Your task to perform on an android device: change alarm snooze length Image 0: 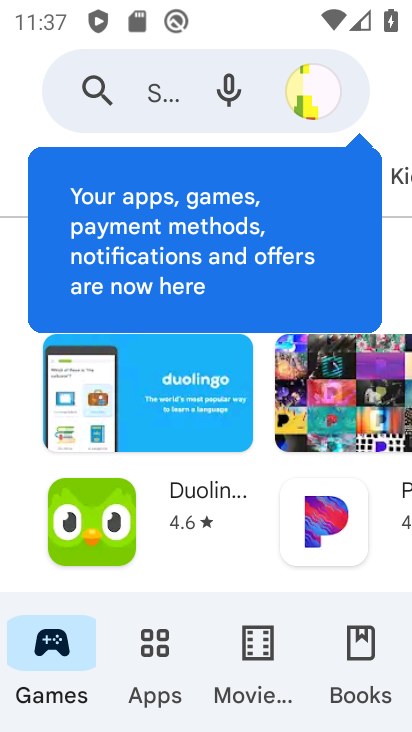
Step 0: press home button
Your task to perform on an android device: change alarm snooze length Image 1: 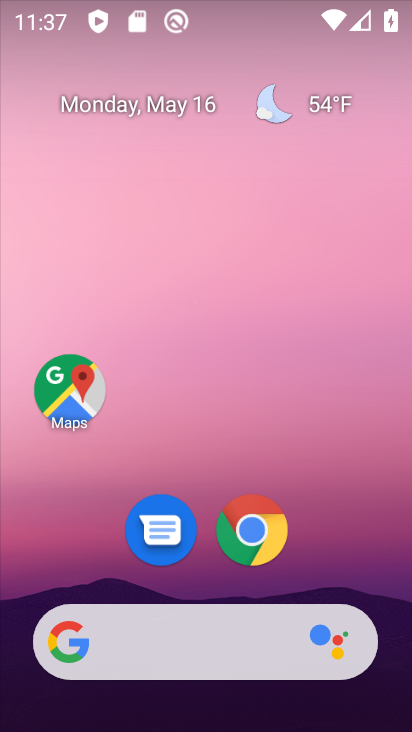
Step 1: drag from (364, 569) to (367, 76)
Your task to perform on an android device: change alarm snooze length Image 2: 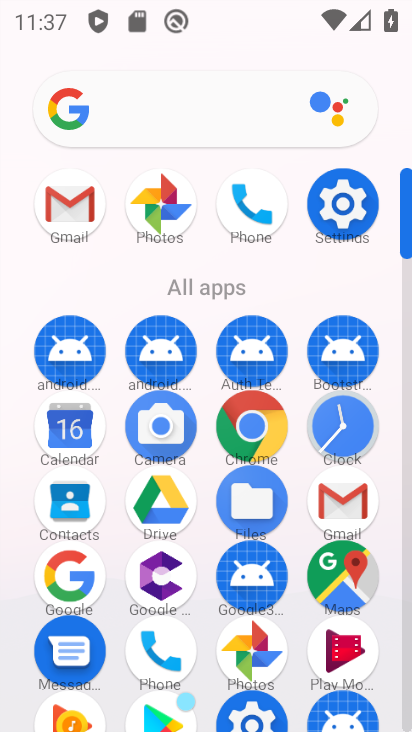
Step 2: click (353, 422)
Your task to perform on an android device: change alarm snooze length Image 3: 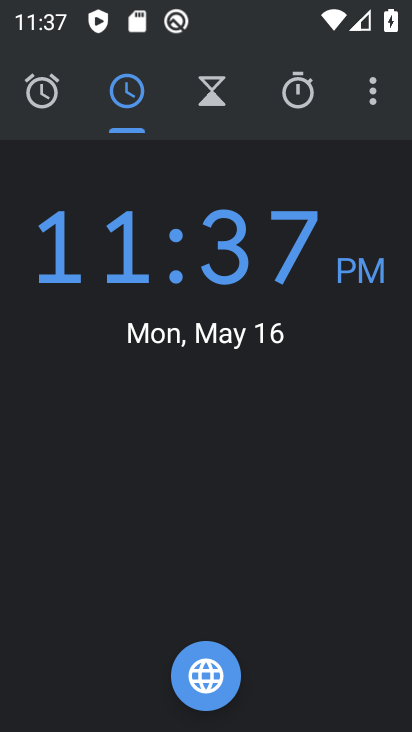
Step 3: click (372, 95)
Your task to perform on an android device: change alarm snooze length Image 4: 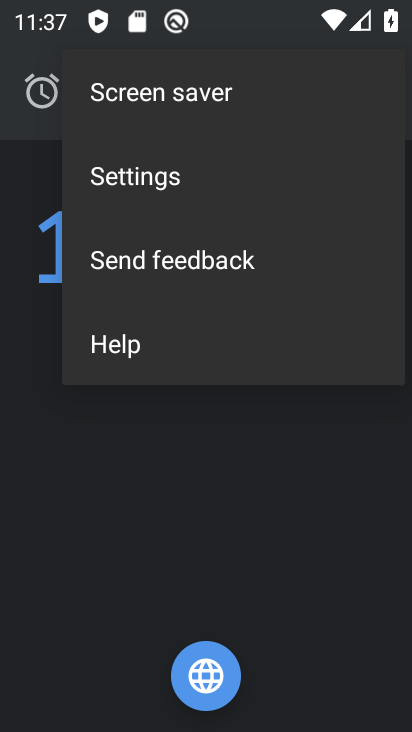
Step 4: click (159, 191)
Your task to perform on an android device: change alarm snooze length Image 5: 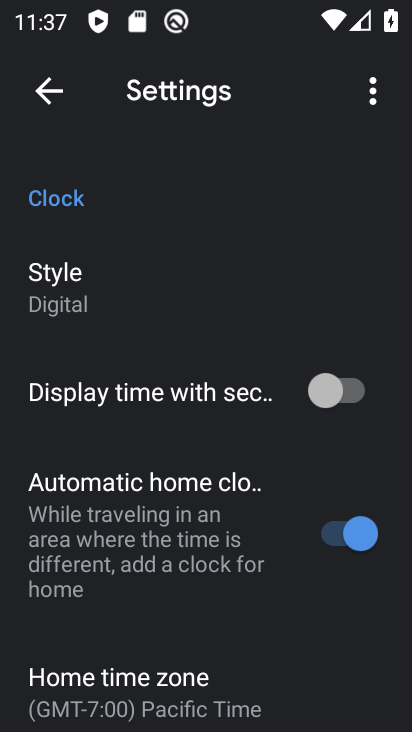
Step 5: drag from (287, 631) to (292, 516)
Your task to perform on an android device: change alarm snooze length Image 6: 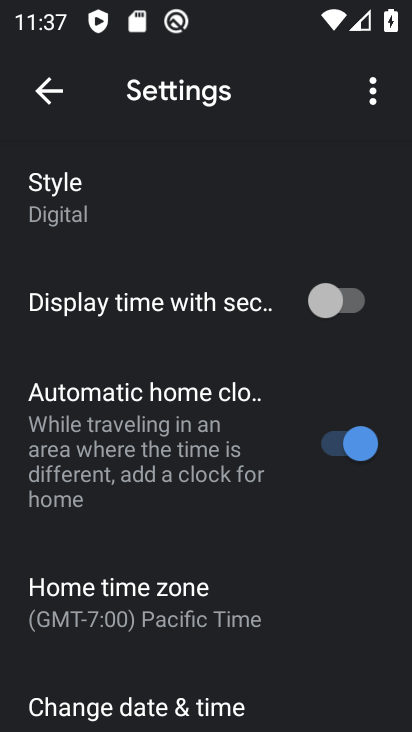
Step 6: drag from (283, 622) to (295, 529)
Your task to perform on an android device: change alarm snooze length Image 7: 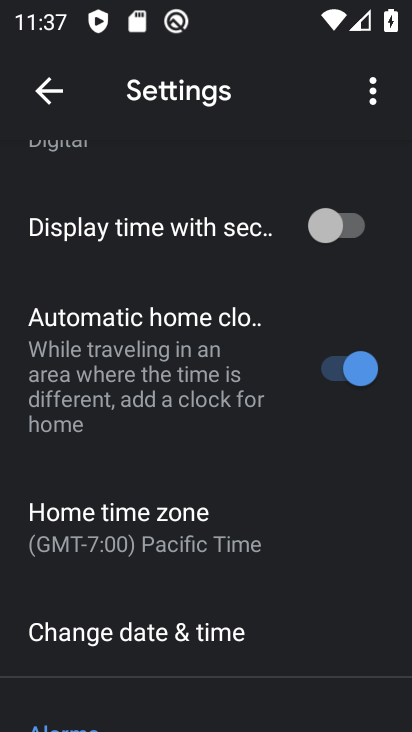
Step 7: drag from (301, 629) to (308, 589)
Your task to perform on an android device: change alarm snooze length Image 8: 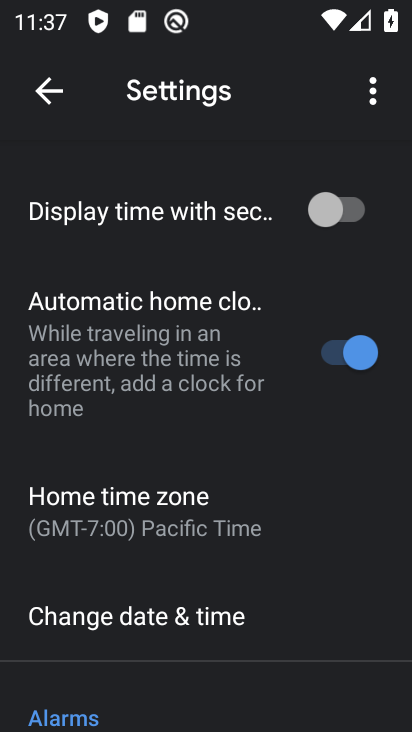
Step 8: drag from (295, 596) to (286, 429)
Your task to perform on an android device: change alarm snooze length Image 9: 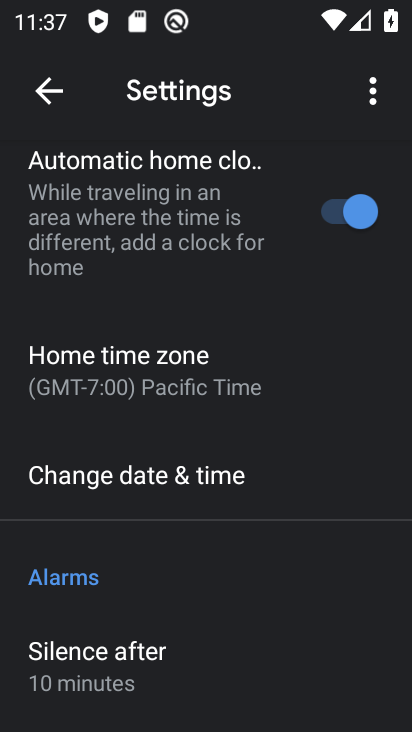
Step 9: drag from (283, 593) to (292, 451)
Your task to perform on an android device: change alarm snooze length Image 10: 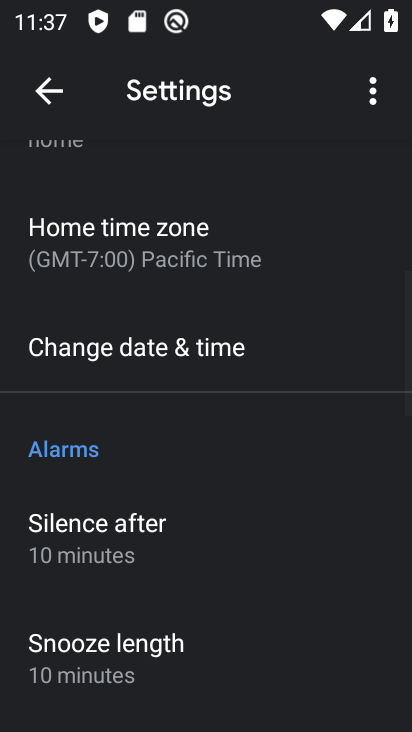
Step 10: drag from (272, 625) to (291, 502)
Your task to perform on an android device: change alarm snooze length Image 11: 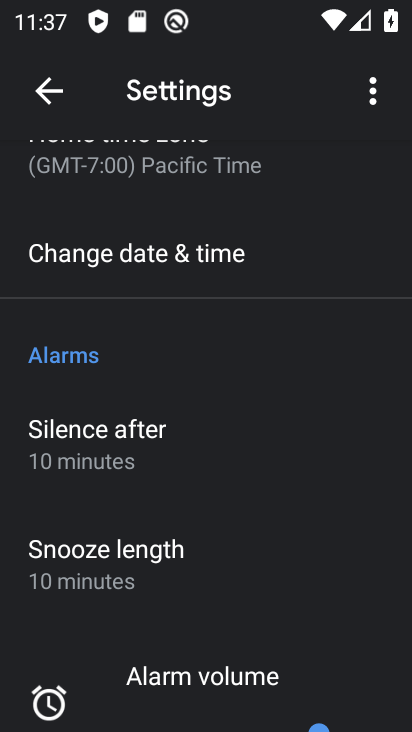
Step 11: drag from (265, 619) to (263, 516)
Your task to perform on an android device: change alarm snooze length Image 12: 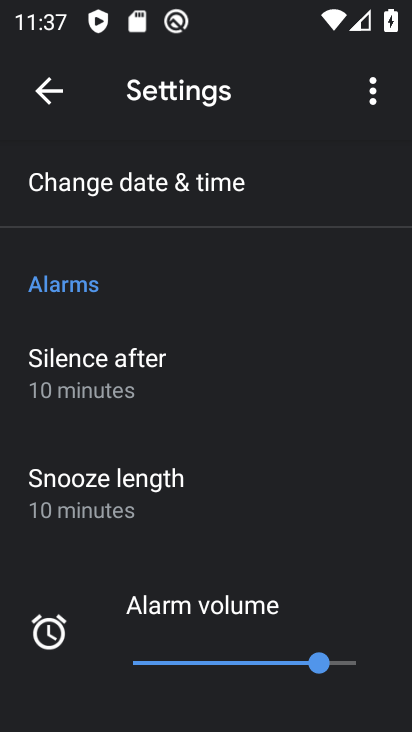
Step 12: click (150, 494)
Your task to perform on an android device: change alarm snooze length Image 13: 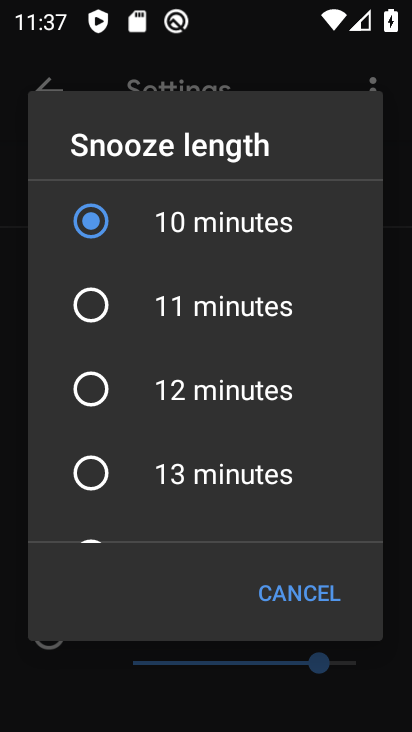
Step 13: click (98, 458)
Your task to perform on an android device: change alarm snooze length Image 14: 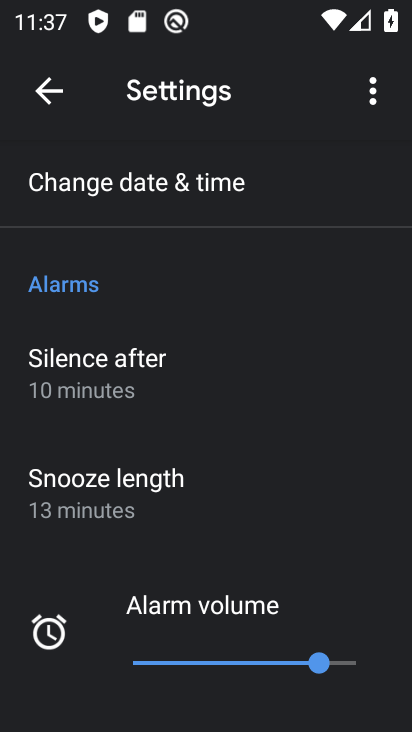
Step 14: task complete